Your task to perform on an android device: Go to network settings Image 0: 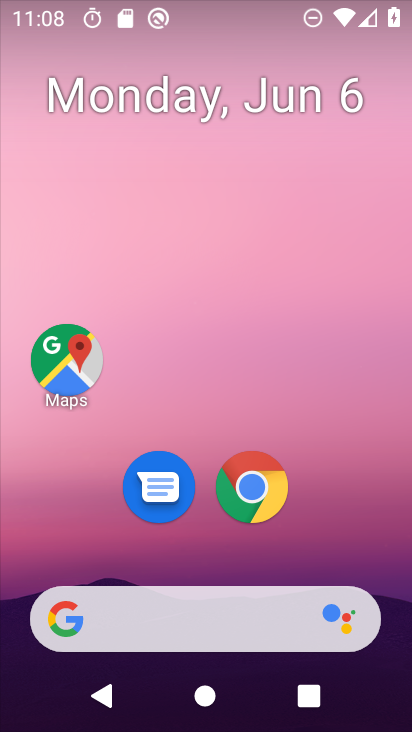
Step 0: drag from (402, 617) to (266, 40)
Your task to perform on an android device: Go to network settings Image 1: 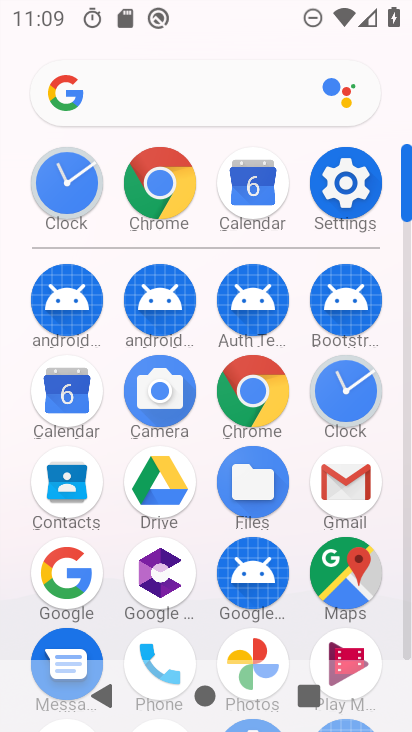
Step 1: click (354, 179)
Your task to perform on an android device: Go to network settings Image 2: 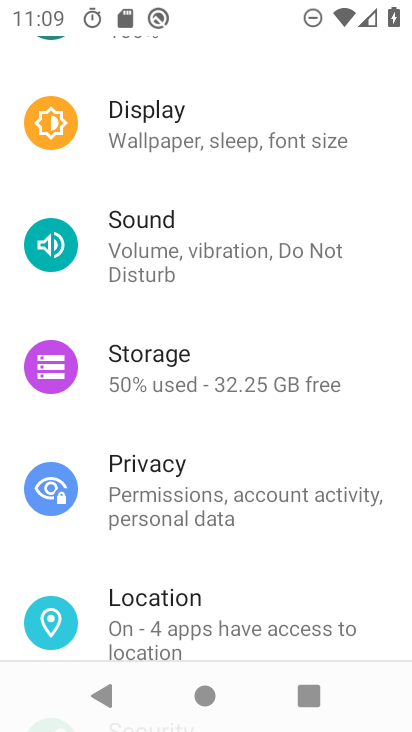
Step 2: drag from (261, 120) to (218, 616)
Your task to perform on an android device: Go to network settings Image 3: 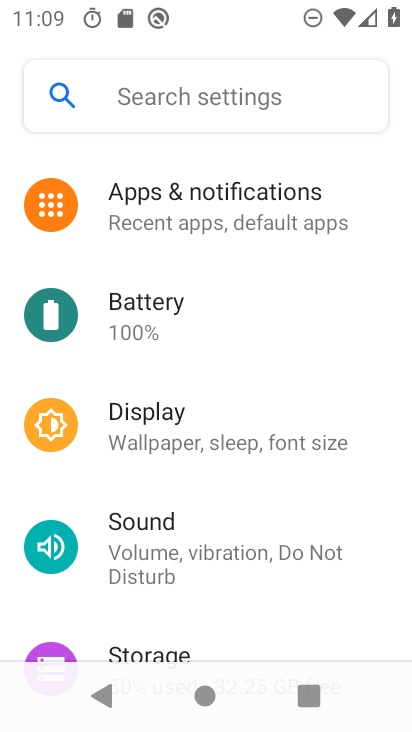
Step 3: drag from (134, 229) to (121, 609)
Your task to perform on an android device: Go to network settings Image 4: 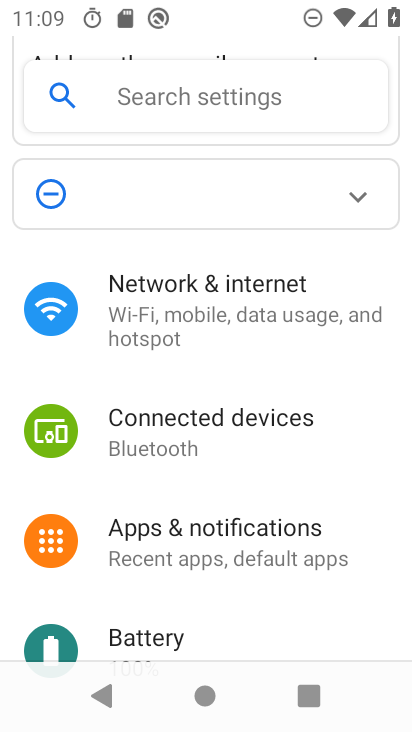
Step 4: click (191, 295)
Your task to perform on an android device: Go to network settings Image 5: 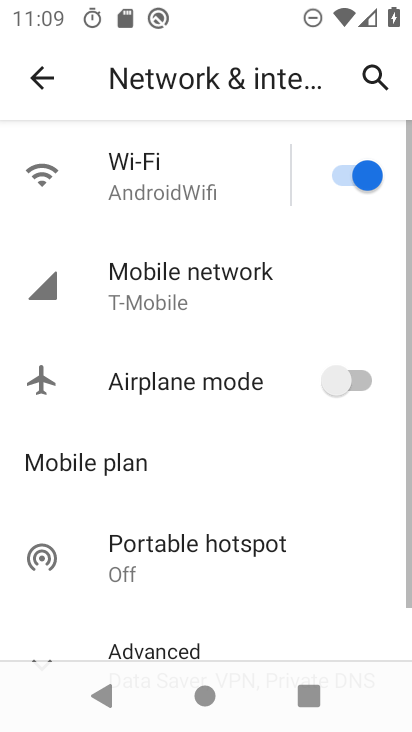
Step 5: task complete